Your task to perform on an android device: Go to Reddit.com Image 0: 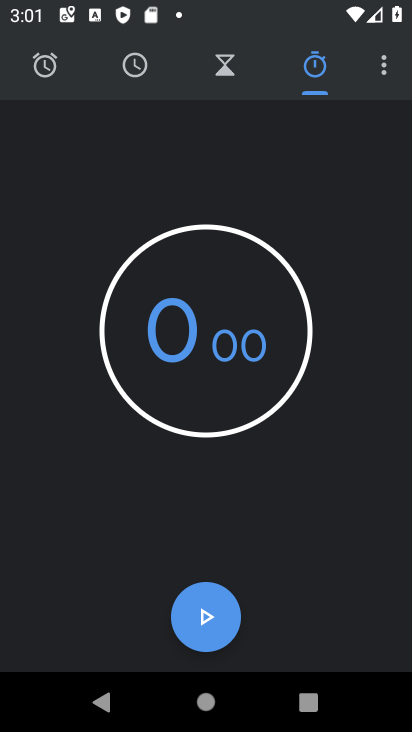
Step 0: press home button
Your task to perform on an android device: Go to Reddit.com Image 1: 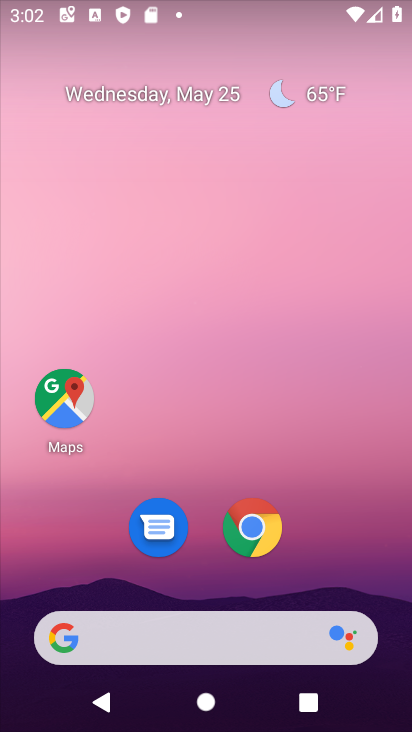
Step 1: drag from (219, 502) to (342, 80)
Your task to perform on an android device: Go to Reddit.com Image 2: 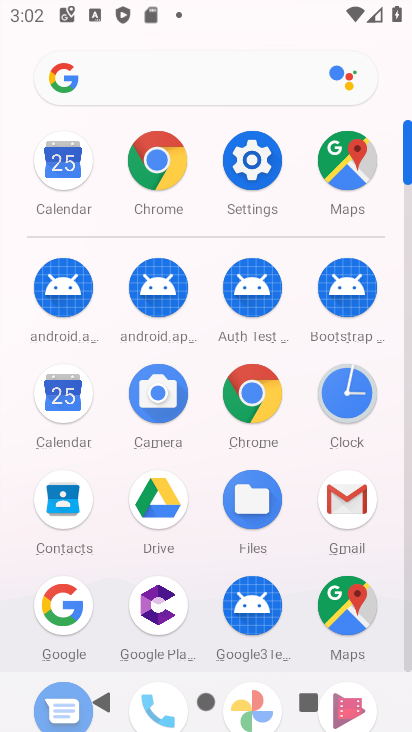
Step 2: click (250, 387)
Your task to perform on an android device: Go to Reddit.com Image 3: 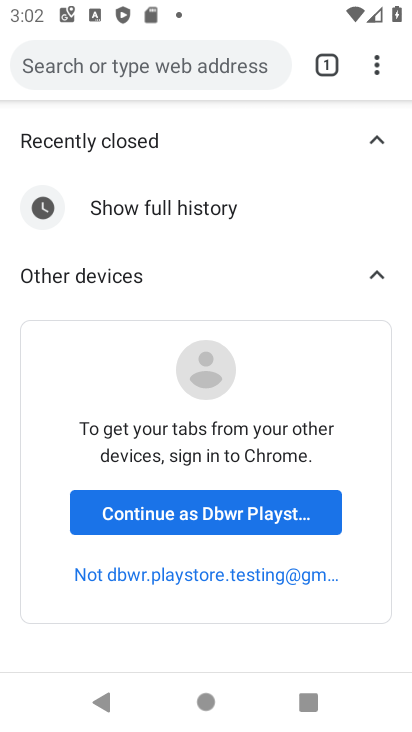
Step 3: click (83, 78)
Your task to perform on an android device: Go to Reddit.com Image 4: 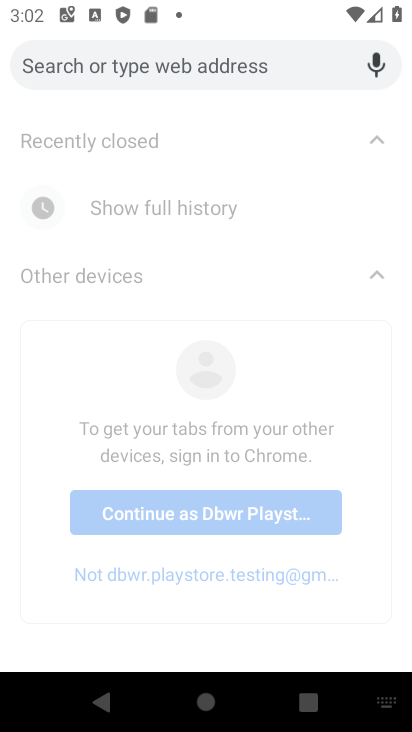
Step 4: type "reddit.com"
Your task to perform on an android device: Go to Reddit.com Image 5: 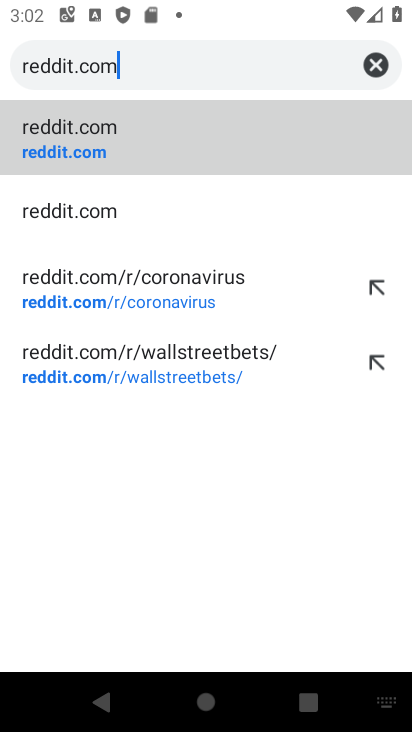
Step 5: click (174, 156)
Your task to perform on an android device: Go to Reddit.com Image 6: 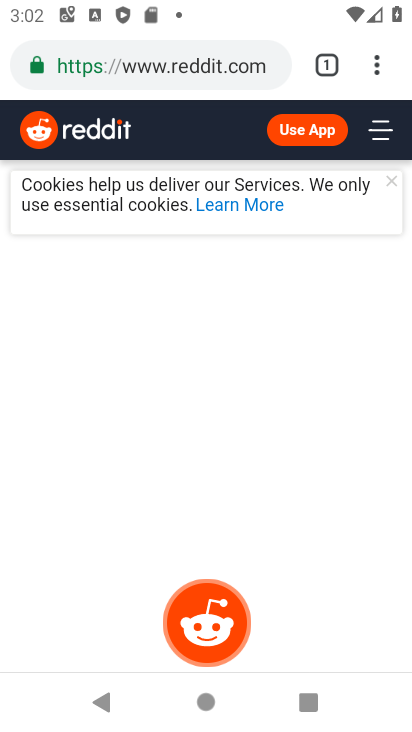
Step 6: task complete